Your task to perform on an android device: add a contact in the contacts app Image 0: 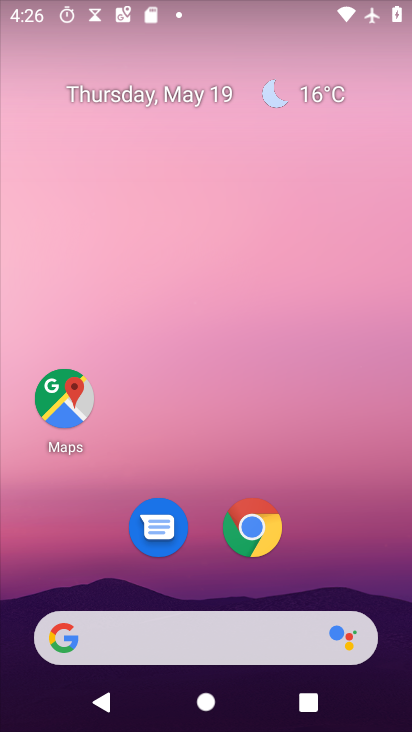
Step 0: drag from (334, 506) to (202, 7)
Your task to perform on an android device: add a contact in the contacts app Image 1: 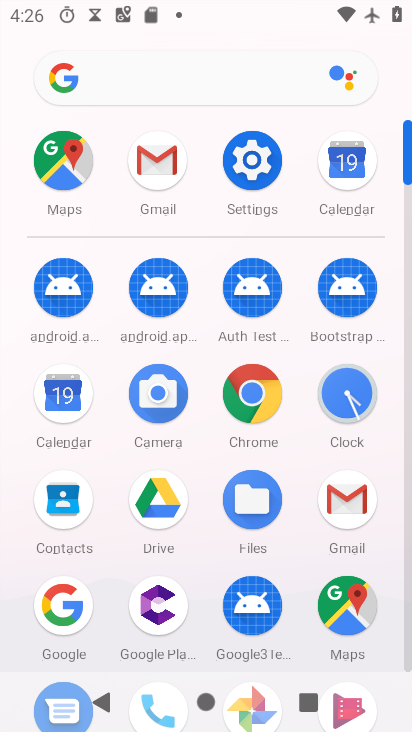
Step 1: click (64, 497)
Your task to perform on an android device: add a contact in the contacts app Image 2: 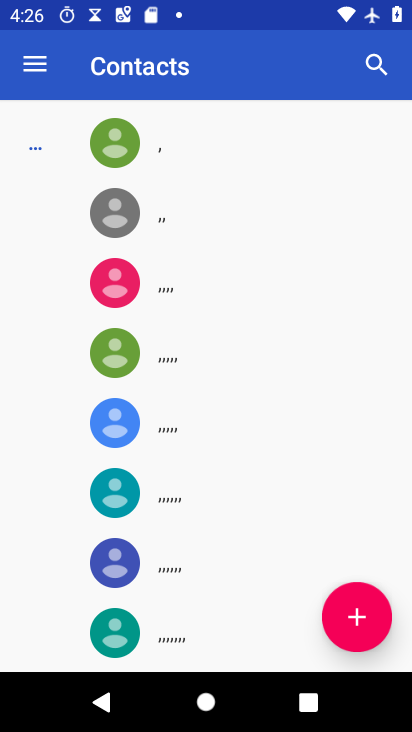
Step 2: click (371, 625)
Your task to perform on an android device: add a contact in the contacts app Image 3: 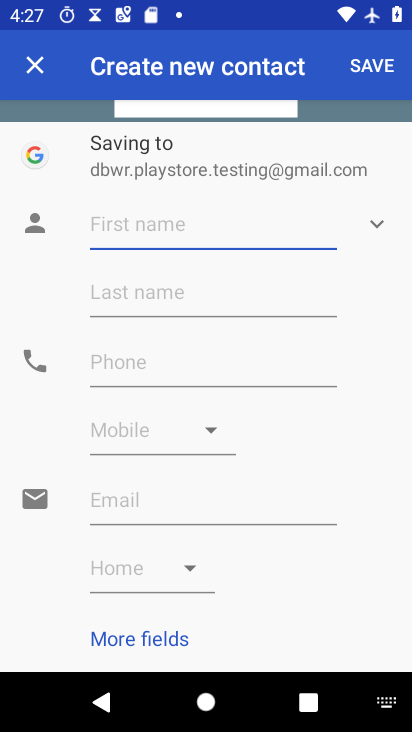
Step 3: type "fgdfg"
Your task to perform on an android device: add a contact in the contacts app Image 4: 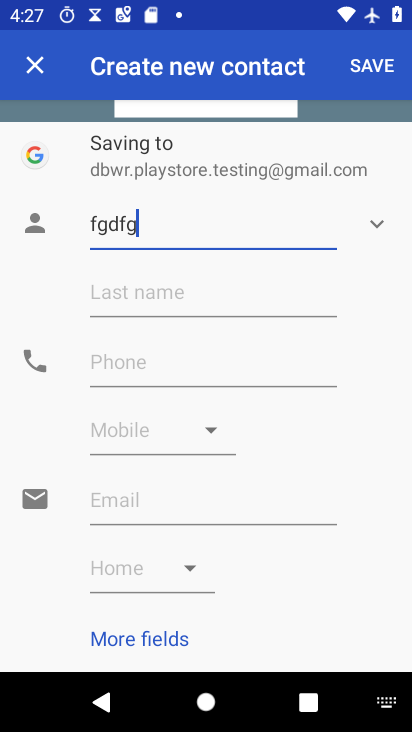
Step 4: type ""
Your task to perform on an android device: add a contact in the contacts app Image 5: 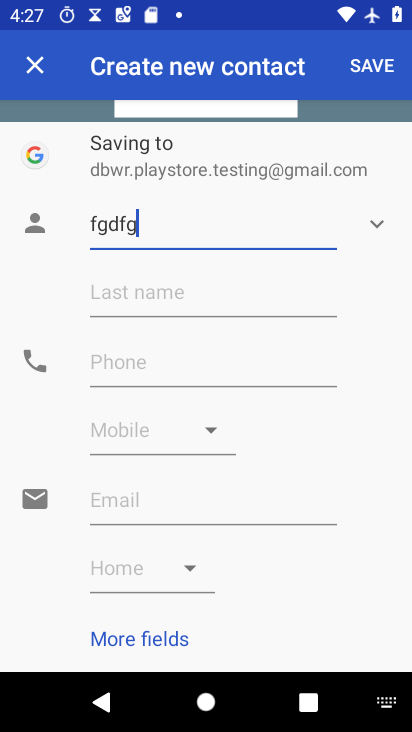
Step 5: click (250, 300)
Your task to perform on an android device: add a contact in the contacts app Image 6: 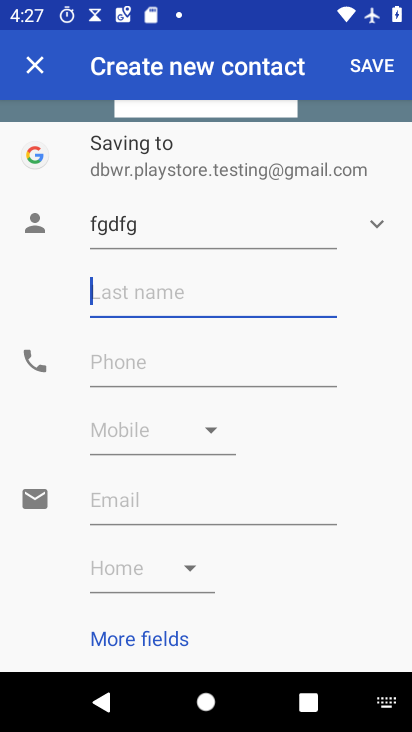
Step 6: type "fgssdf"
Your task to perform on an android device: add a contact in the contacts app Image 7: 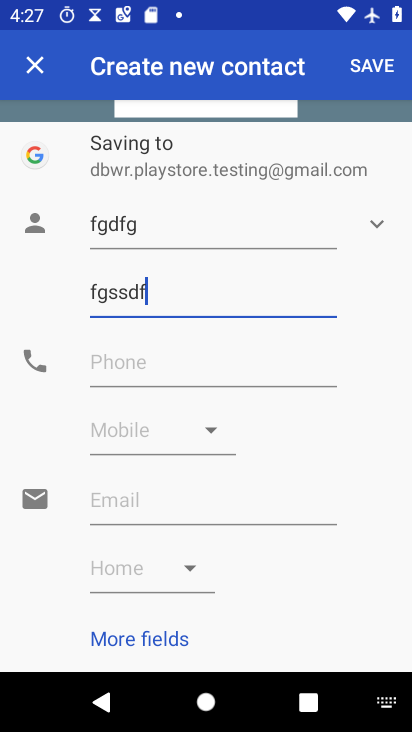
Step 7: type ""
Your task to perform on an android device: add a contact in the contacts app Image 8: 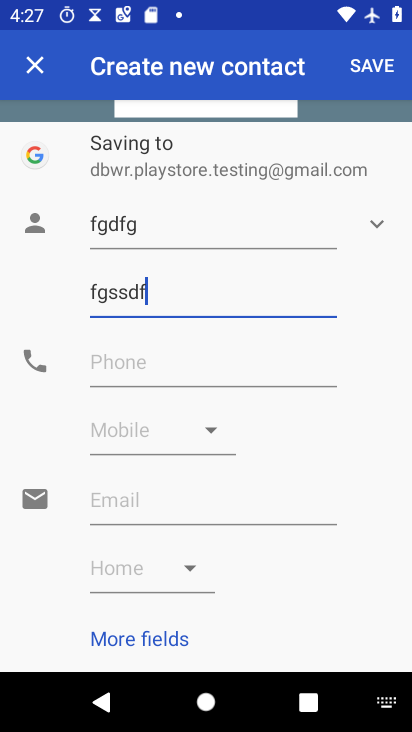
Step 8: click (256, 377)
Your task to perform on an android device: add a contact in the contacts app Image 9: 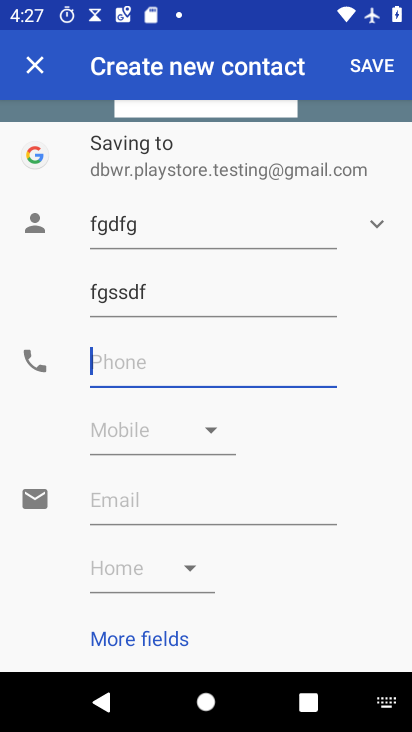
Step 9: type "4563456"
Your task to perform on an android device: add a contact in the contacts app Image 10: 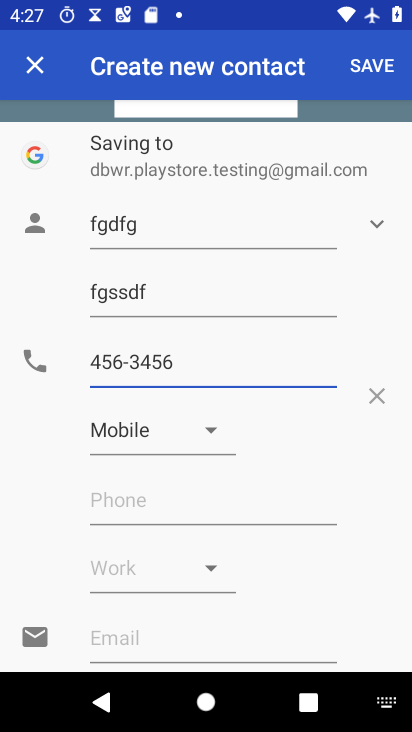
Step 10: click (386, 74)
Your task to perform on an android device: add a contact in the contacts app Image 11: 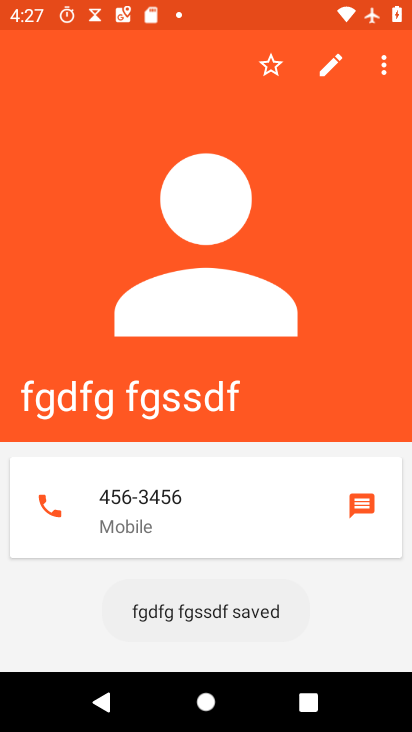
Step 11: task complete